Your task to perform on an android device: turn off translation in the chrome app Image 0: 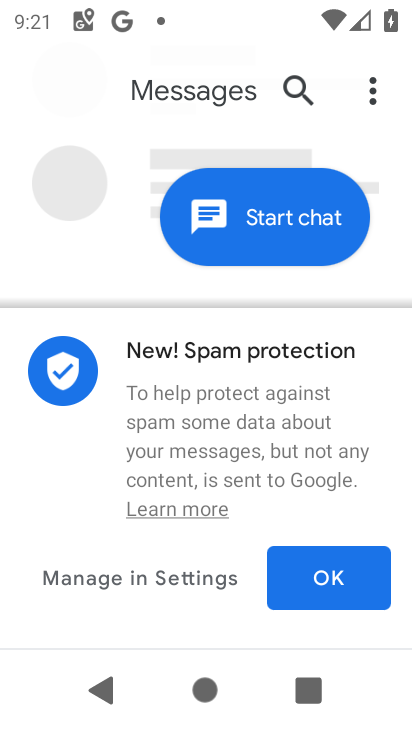
Step 0: press home button
Your task to perform on an android device: turn off translation in the chrome app Image 1: 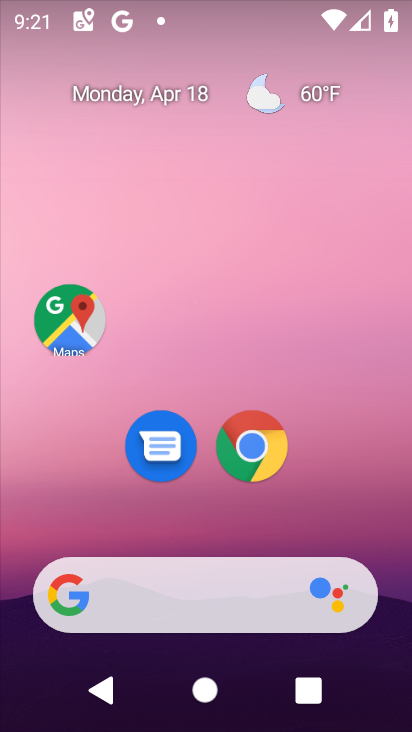
Step 1: drag from (365, 498) to (368, 126)
Your task to perform on an android device: turn off translation in the chrome app Image 2: 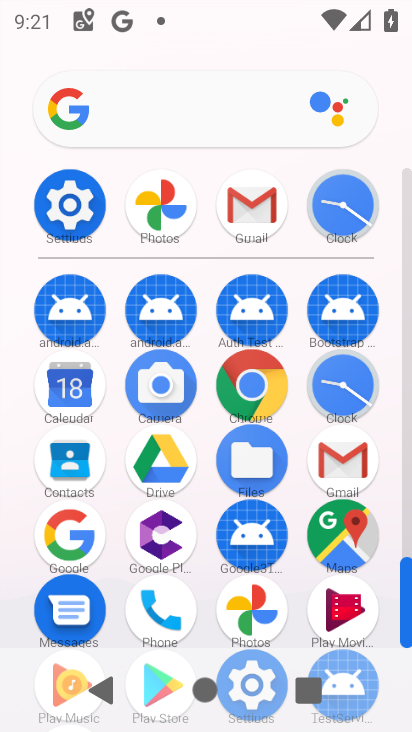
Step 2: click (259, 393)
Your task to perform on an android device: turn off translation in the chrome app Image 3: 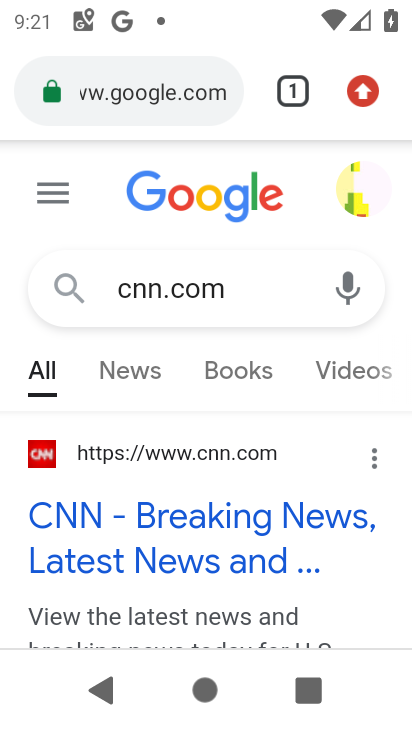
Step 3: click (367, 88)
Your task to perform on an android device: turn off translation in the chrome app Image 4: 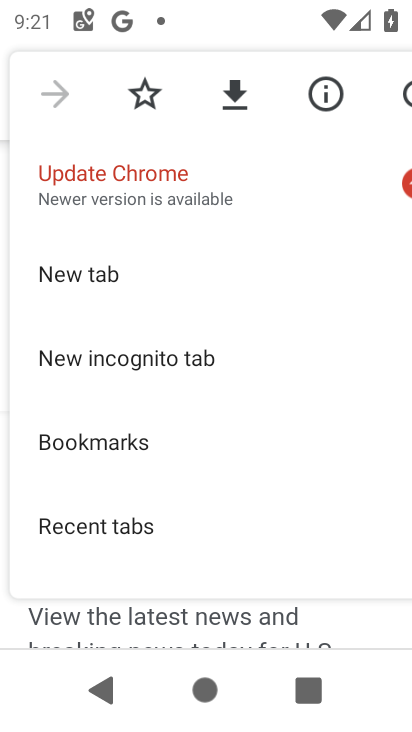
Step 4: drag from (316, 501) to (320, 185)
Your task to perform on an android device: turn off translation in the chrome app Image 5: 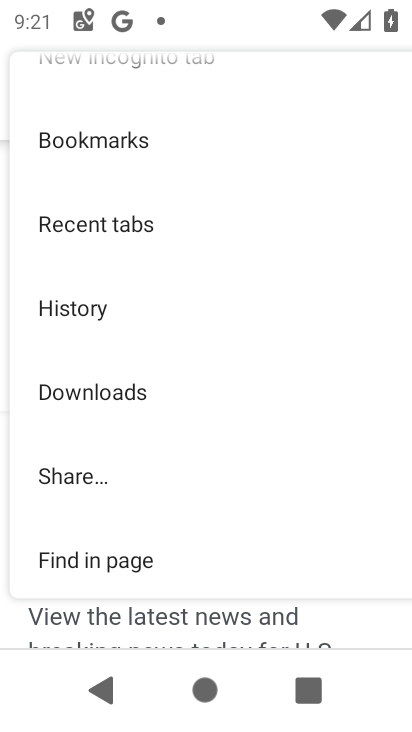
Step 5: drag from (323, 529) to (321, 263)
Your task to perform on an android device: turn off translation in the chrome app Image 6: 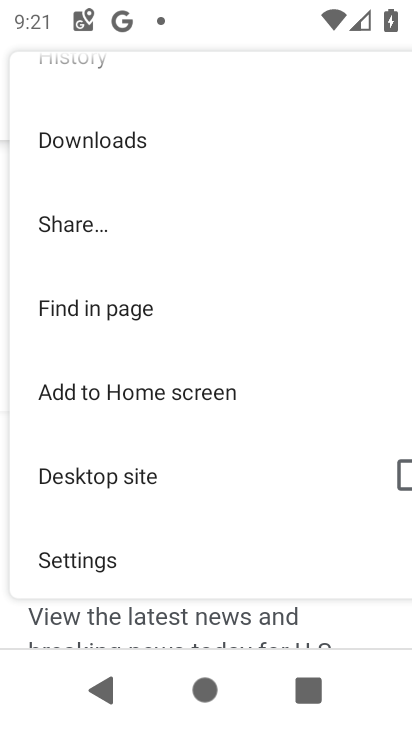
Step 6: click (103, 554)
Your task to perform on an android device: turn off translation in the chrome app Image 7: 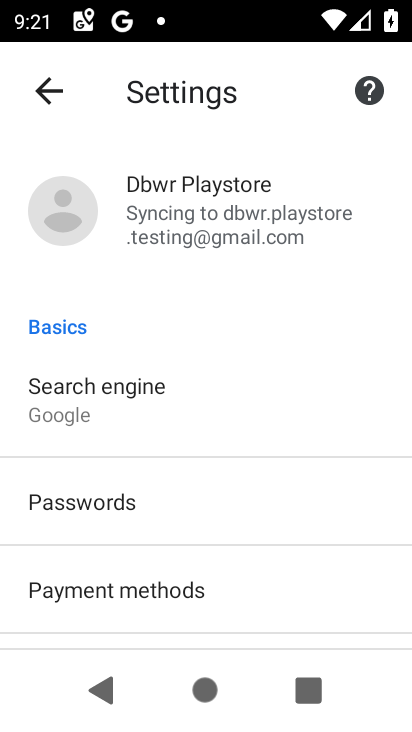
Step 7: drag from (299, 564) to (310, 323)
Your task to perform on an android device: turn off translation in the chrome app Image 8: 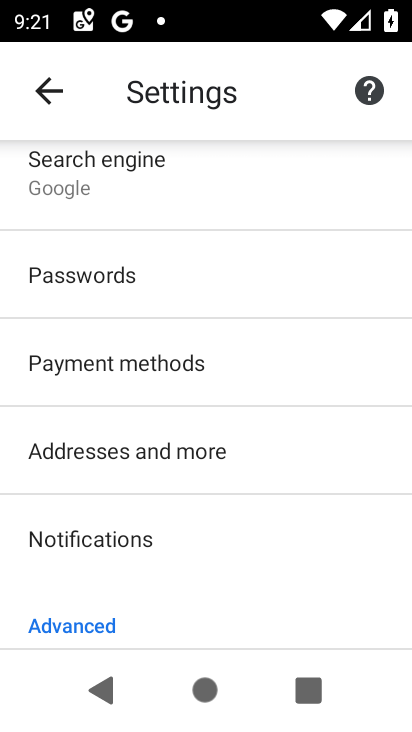
Step 8: drag from (301, 563) to (309, 397)
Your task to perform on an android device: turn off translation in the chrome app Image 9: 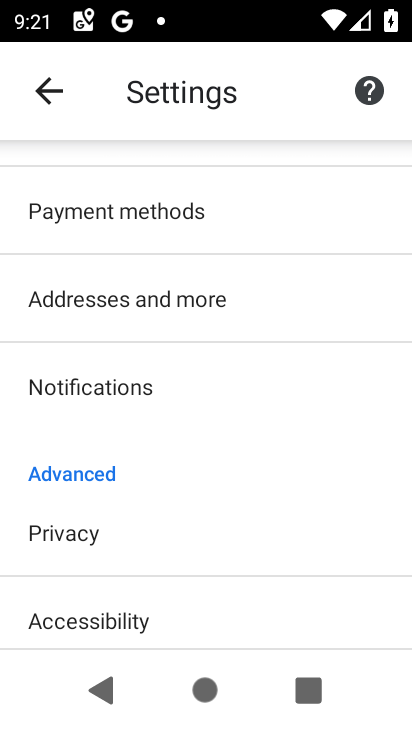
Step 9: drag from (302, 576) to (308, 384)
Your task to perform on an android device: turn off translation in the chrome app Image 10: 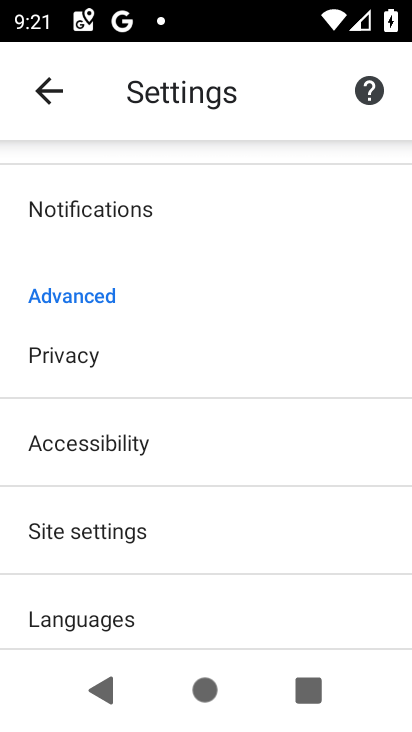
Step 10: drag from (307, 543) to (303, 374)
Your task to perform on an android device: turn off translation in the chrome app Image 11: 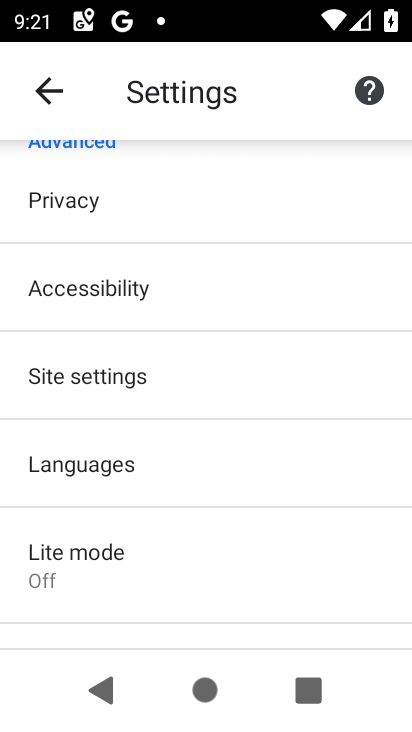
Step 11: click (139, 467)
Your task to perform on an android device: turn off translation in the chrome app Image 12: 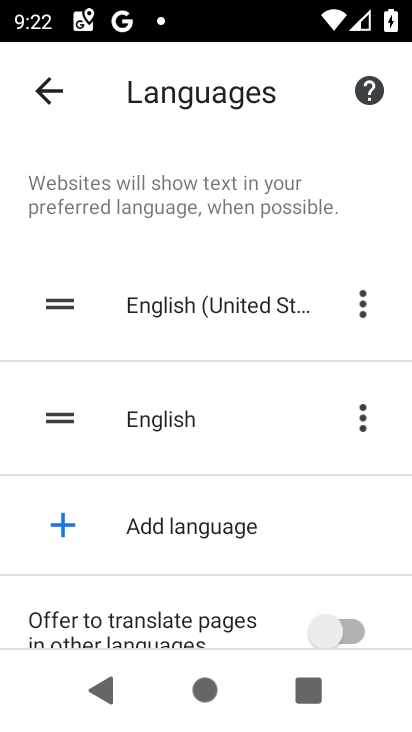
Step 12: task complete